Your task to perform on an android device: Go to accessibility settings Image 0: 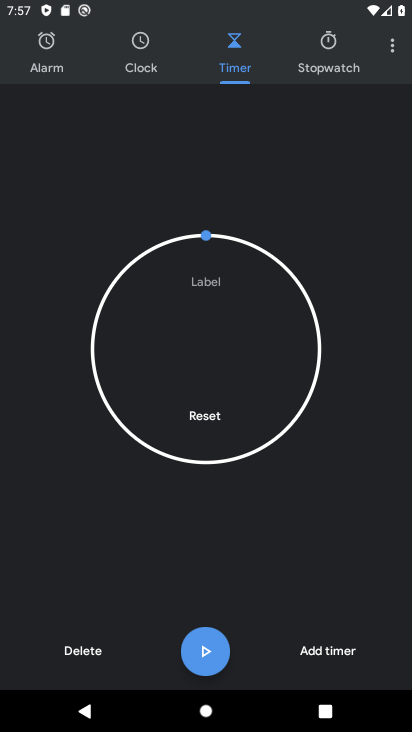
Step 0: press home button
Your task to perform on an android device: Go to accessibility settings Image 1: 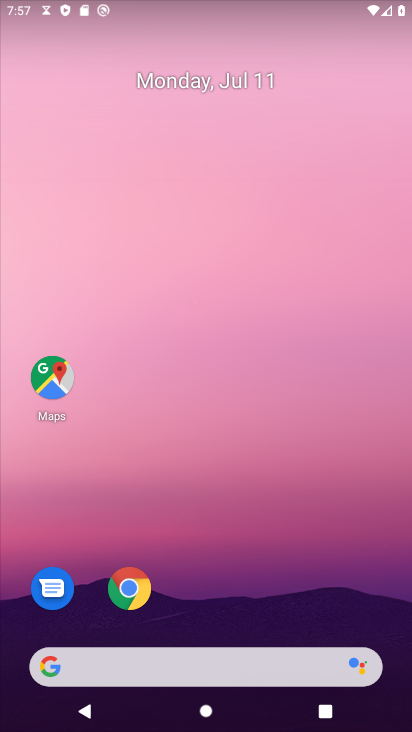
Step 1: drag from (297, 578) to (277, 63)
Your task to perform on an android device: Go to accessibility settings Image 2: 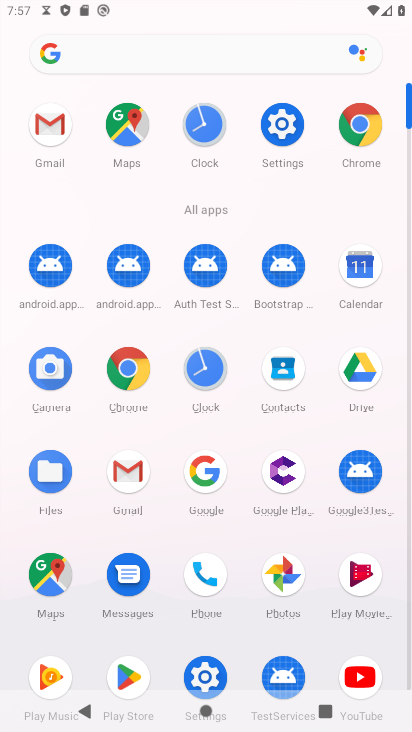
Step 2: click (296, 138)
Your task to perform on an android device: Go to accessibility settings Image 3: 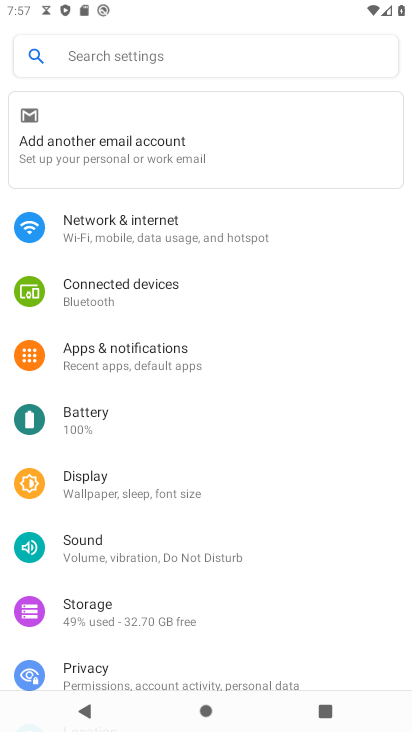
Step 3: drag from (218, 510) to (216, 235)
Your task to perform on an android device: Go to accessibility settings Image 4: 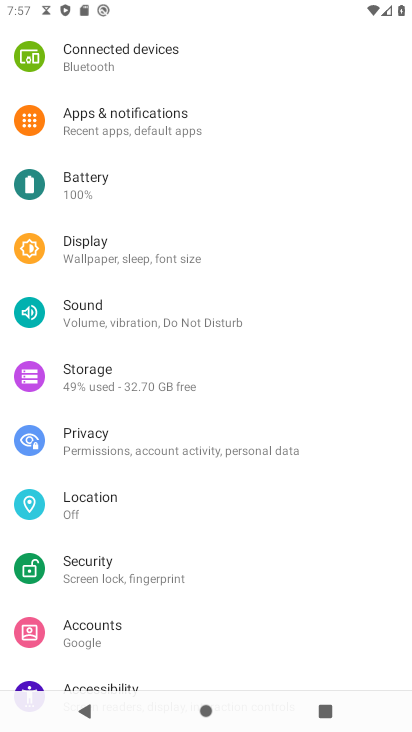
Step 4: drag from (138, 667) to (146, 444)
Your task to perform on an android device: Go to accessibility settings Image 5: 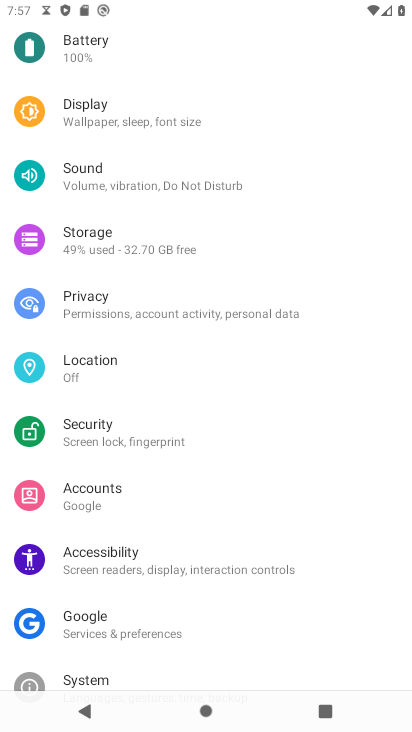
Step 5: click (93, 564)
Your task to perform on an android device: Go to accessibility settings Image 6: 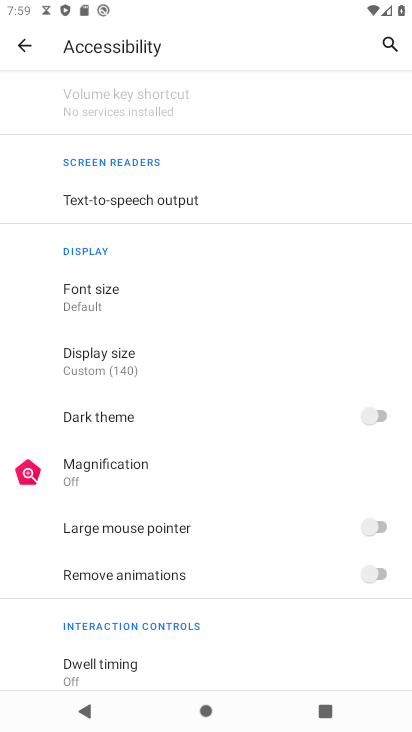
Step 6: task complete